Your task to perform on an android device: turn on translation in the chrome app Image 0: 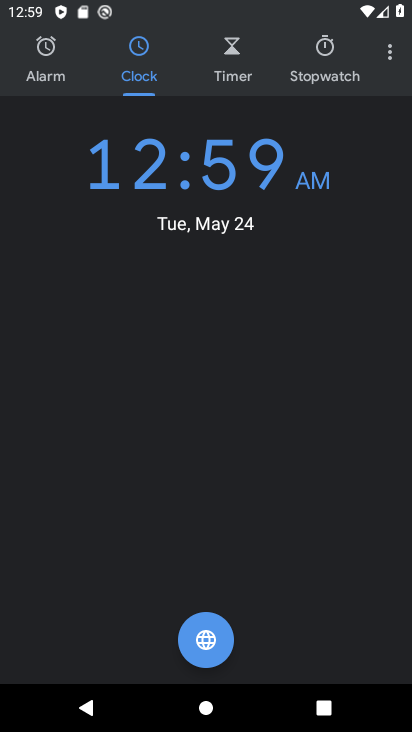
Step 0: press home button
Your task to perform on an android device: turn on translation in the chrome app Image 1: 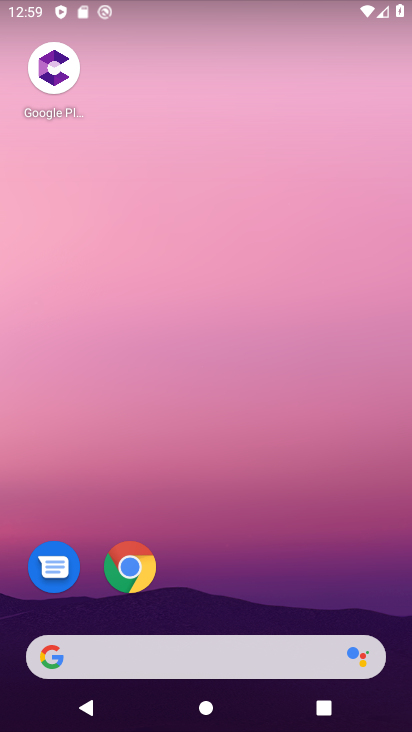
Step 1: click (136, 568)
Your task to perform on an android device: turn on translation in the chrome app Image 2: 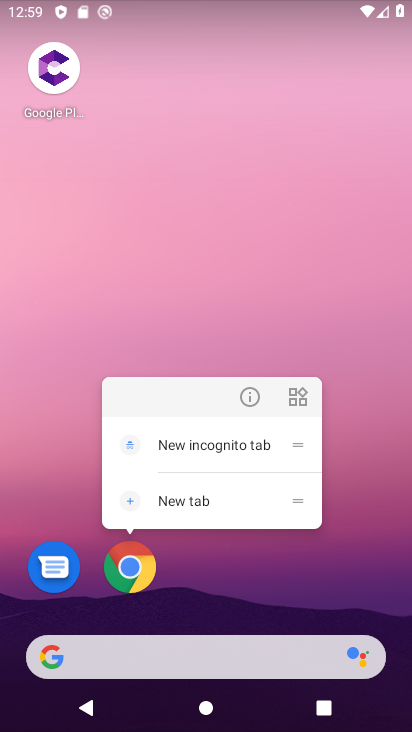
Step 2: click (138, 566)
Your task to perform on an android device: turn on translation in the chrome app Image 3: 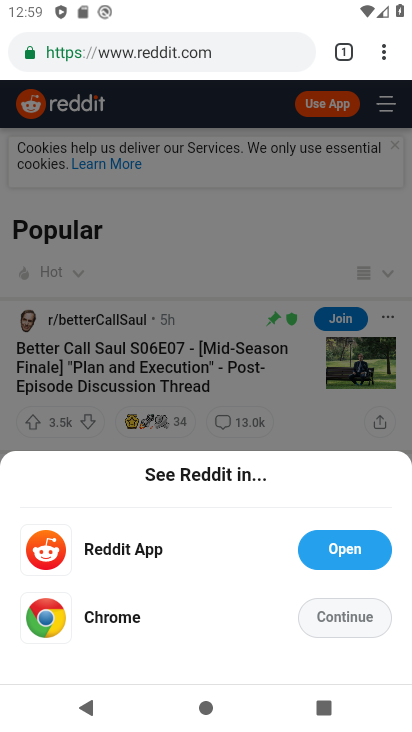
Step 3: click (388, 49)
Your task to perform on an android device: turn on translation in the chrome app Image 4: 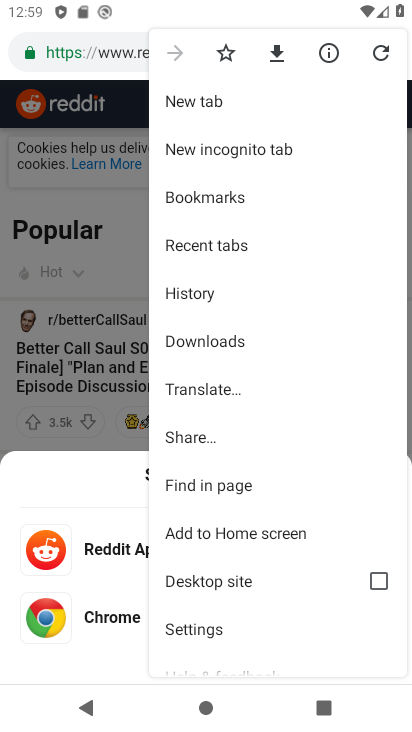
Step 4: click (192, 638)
Your task to perform on an android device: turn on translation in the chrome app Image 5: 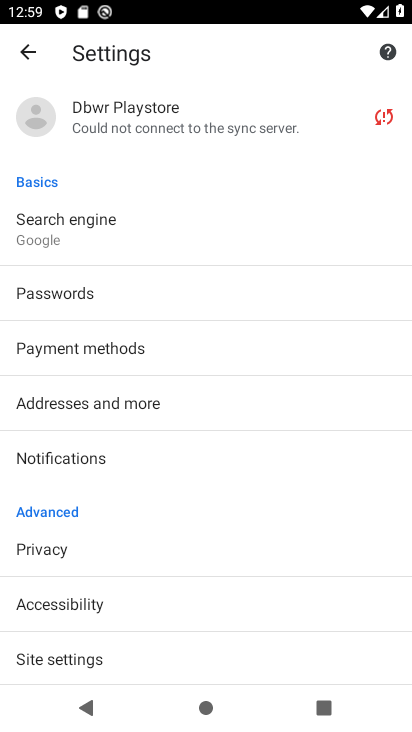
Step 5: drag from (108, 617) to (141, 299)
Your task to perform on an android device: turn on translation in the chrome app Image 6: 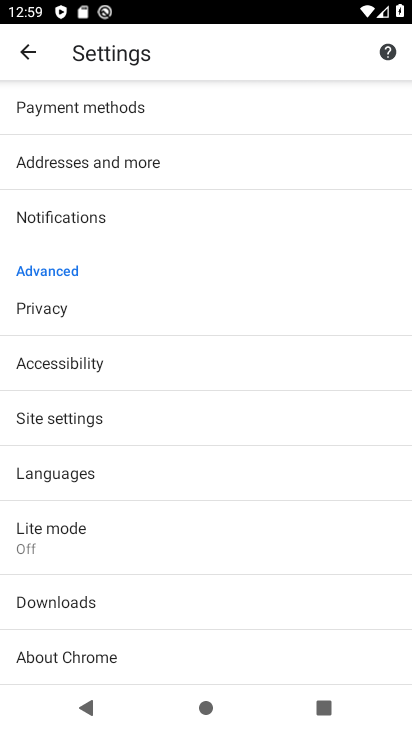
Step 6: click (55, 486)
Your task to perform on an android device: turn on translation in the chrome app Image 7: 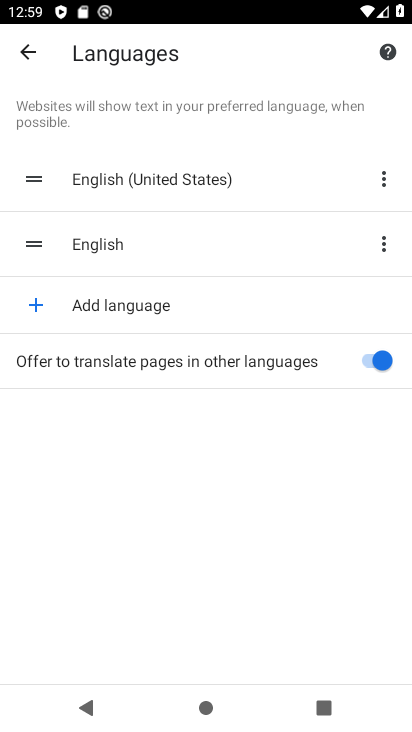
Step 7: task complete